Your task to perform on an android device: manage bookmarks in the chrome app Image 0: 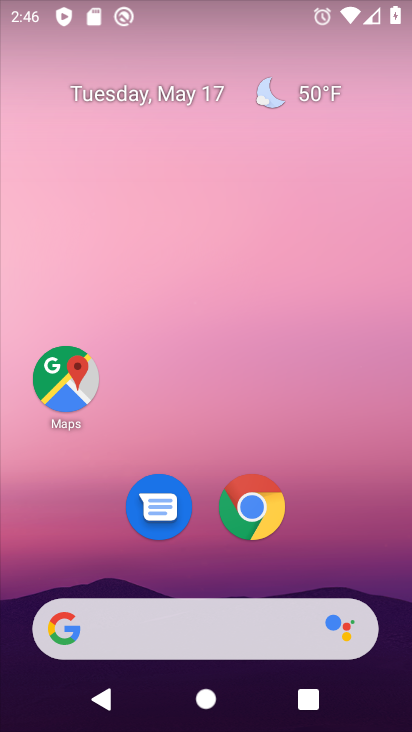
Step 0: click (250, 510)
Your task to perform on an android device: manage bookmarks in the chrome app Image 1: 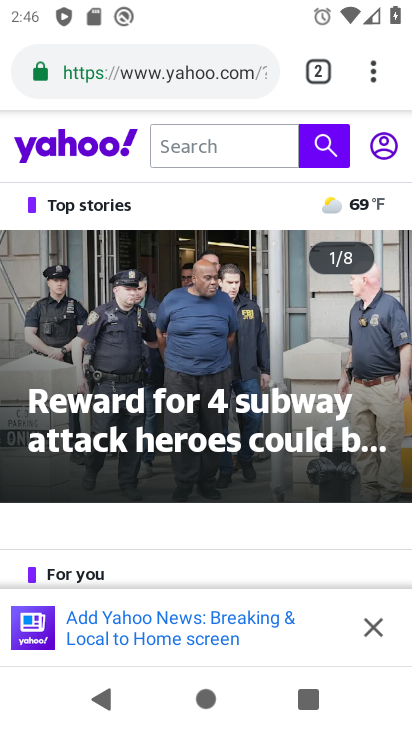
Step 1: click (370, 65)
Your task to perform on an android device: manage bookmarks in the chrome app Image 2: 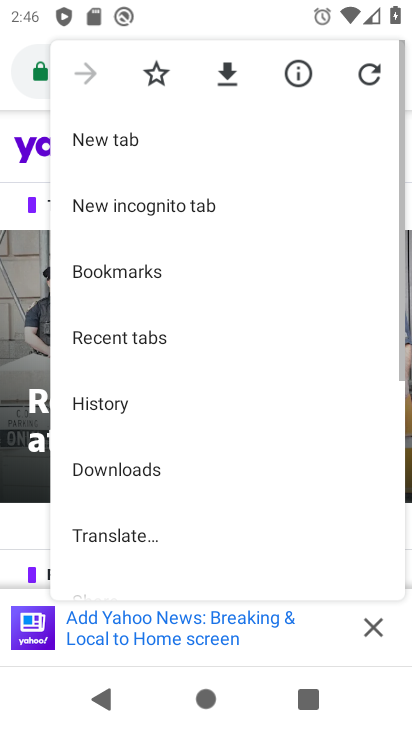
Step 2: click (130, 274)
Your task to perform on an android device: manage bookmarks in the chrome app Image 3: 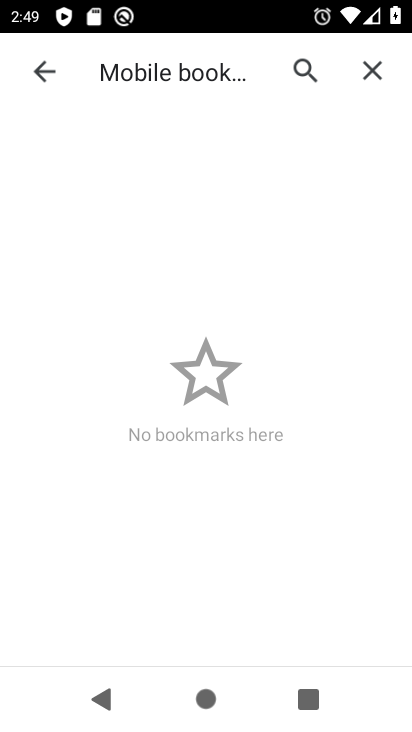
Step 3: task complete